Your task to perform on an android device: See recent photos Image 0: 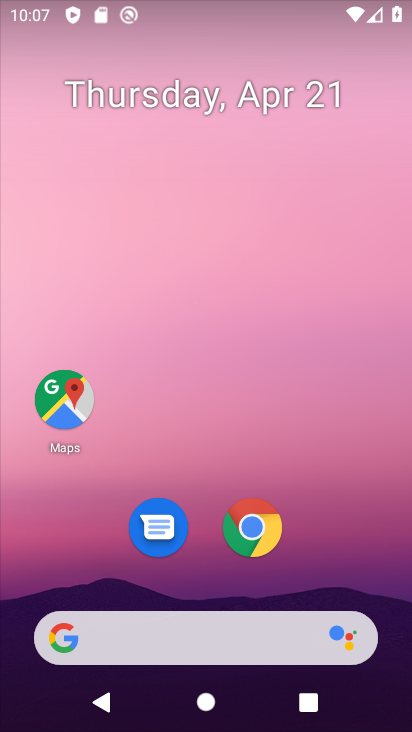
Step 0: drag from (313, 580) to (276, 59)
Your task to perform on an android device: See recent photos Image 1: 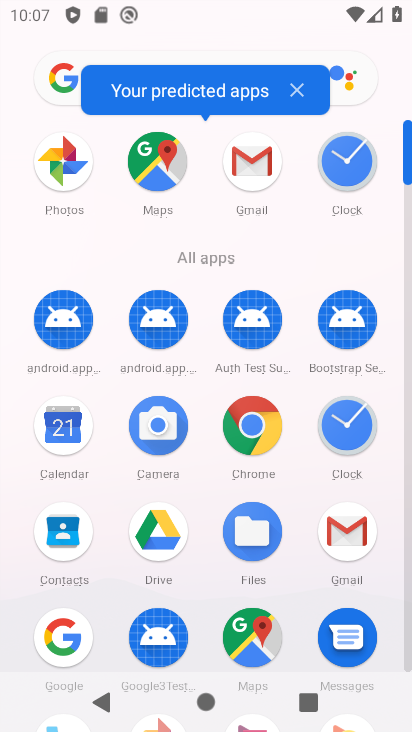
Step 1: click (249, 411)
Your task to perform on an android device: See recent photos Image 2: 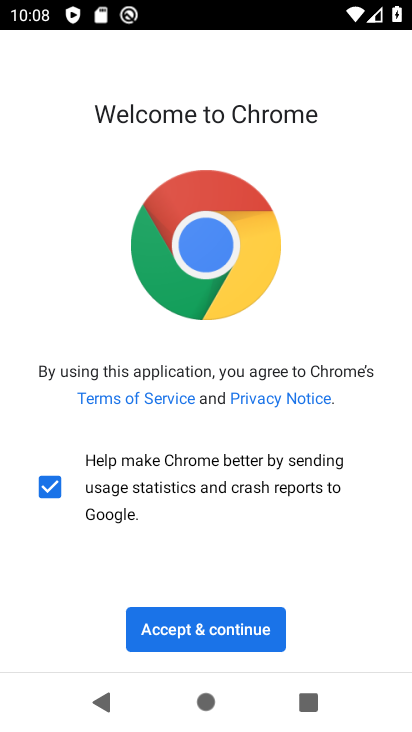
Step 2: click (230, 642)
Your task to perform on an android device: See recent photos Image 3: 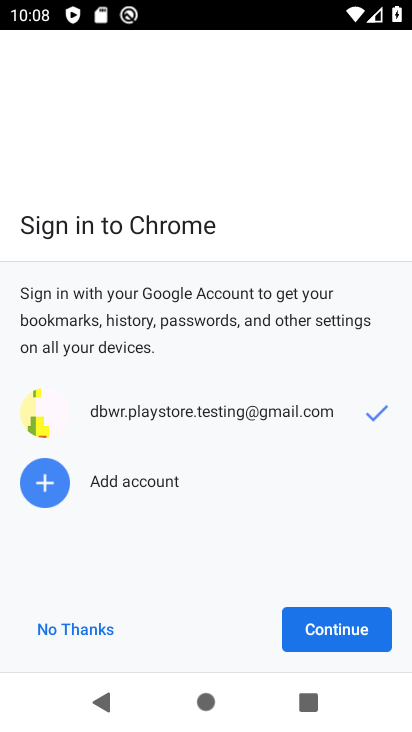
Step 3: click (300, 635)
Your task to perform on an android device: See recent photos Image 4: 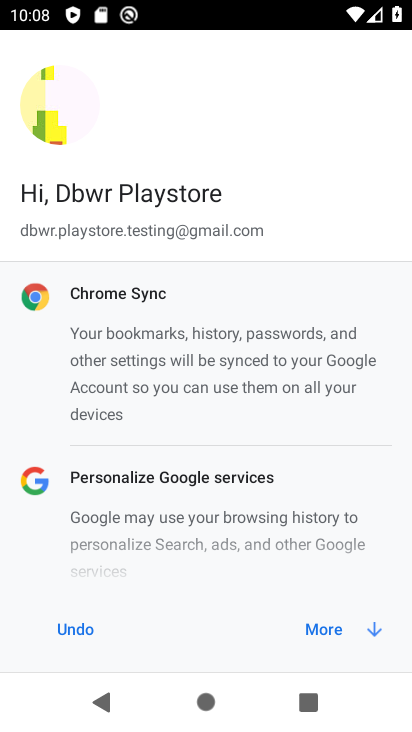
Step 4: click (341, 624)
Your task to perform on an android device: See recent photos Image 5: 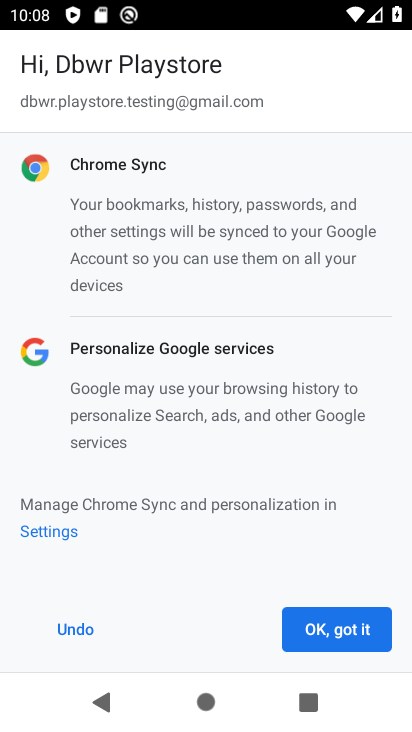
Step 5: click (349, 632)
Your task to perform on an android device: See recent photos Image 6: 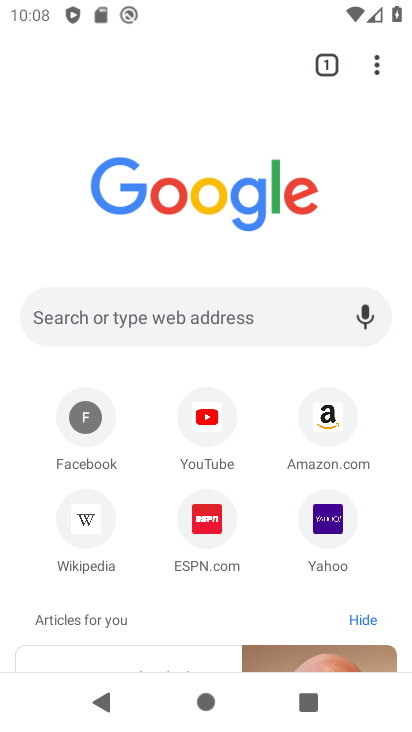
Step 6: task complete